Your task to perform on an android device: star an email in the gmail app Image 0: 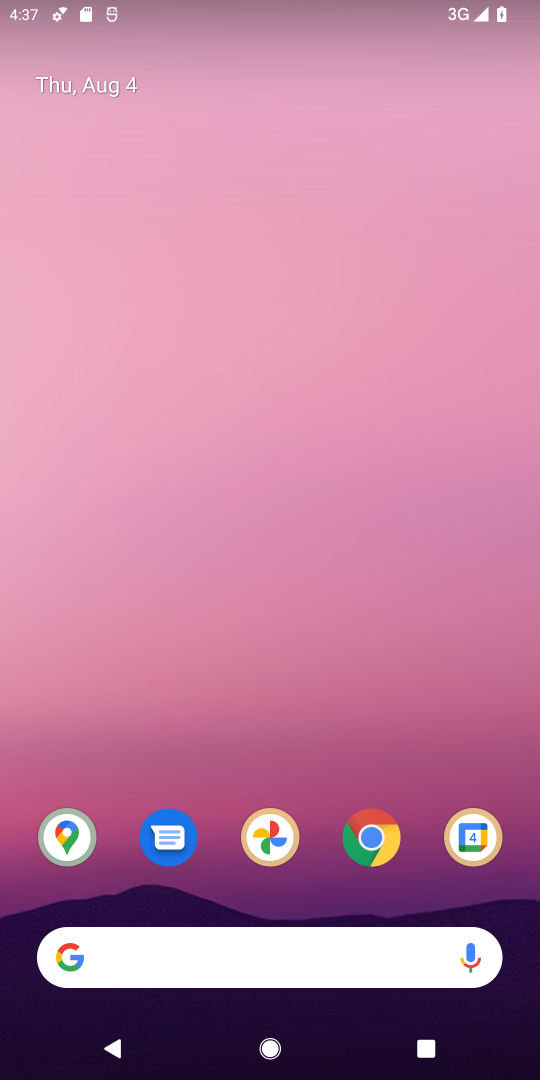
Step 0: drag from (306, 891) to (230, 362)
Your task to perform on an android device: star an email in the gmail app Image 1: 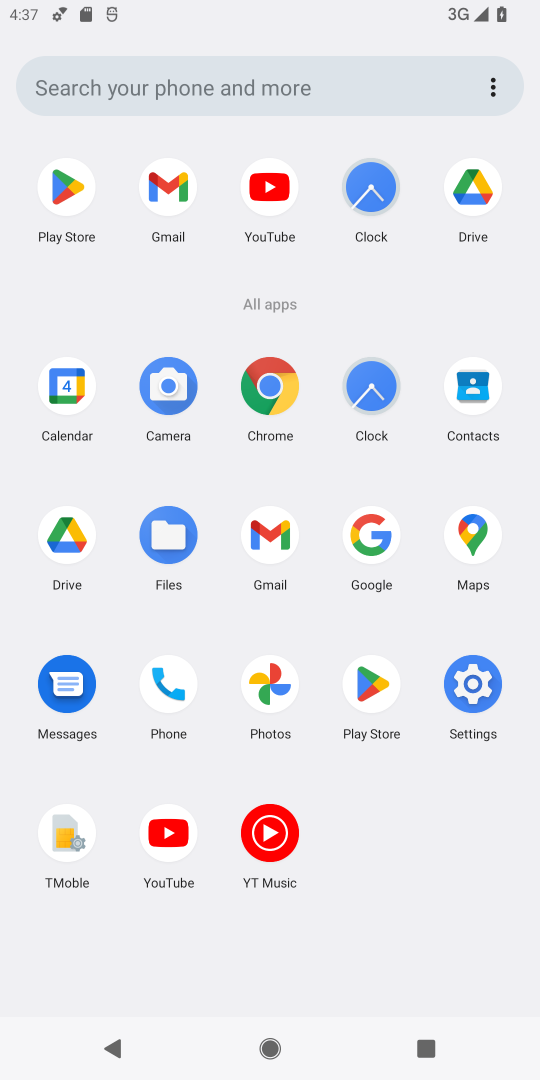
Step 1: click (259, 529)
Your task to perform on an android device: star an email in the gmail app Image 2: 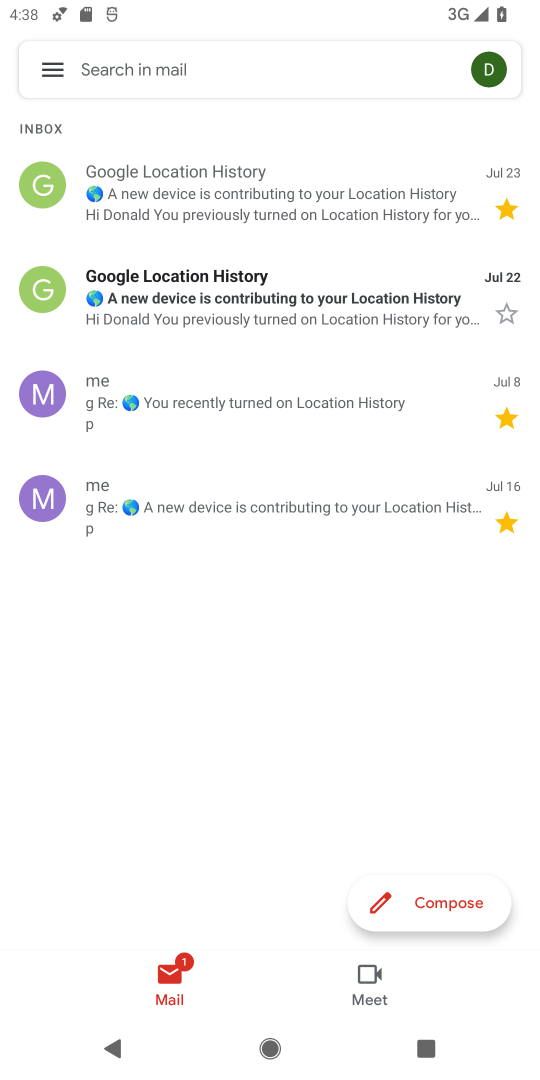
Step 2: click (513, 309)
Your task to perform on an android device: star an email in the gmail app Image 3: 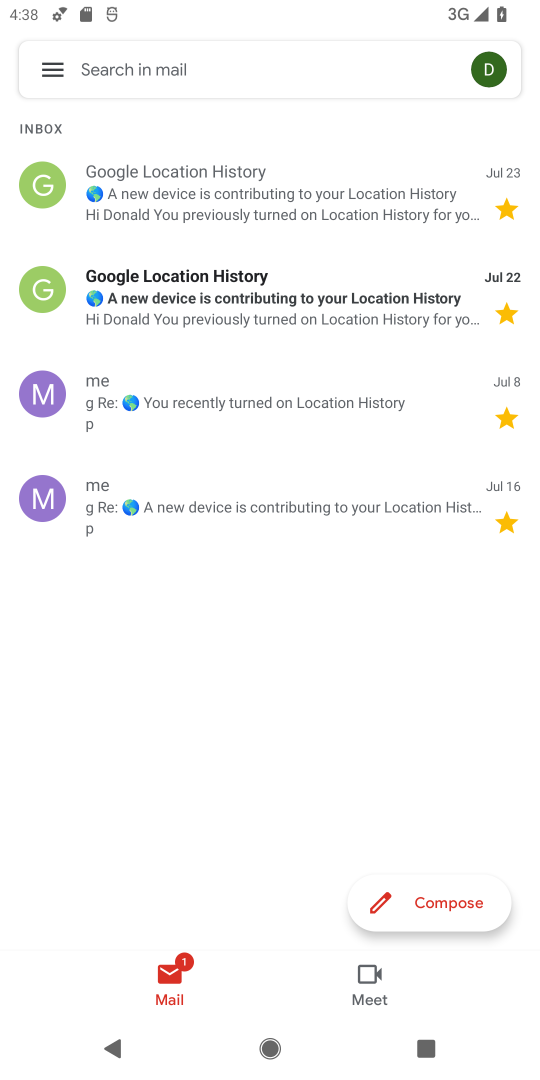
Step 3: task complete